Your task to perform on an android device: set the stopwatch Image 0: 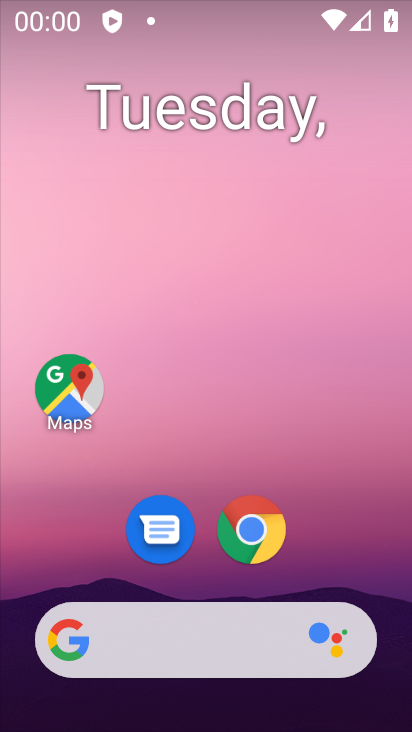
Step 0: drag from (319, 436) to (70, 32)
Your task to perform on an android device: set the stopwatch Image 1: 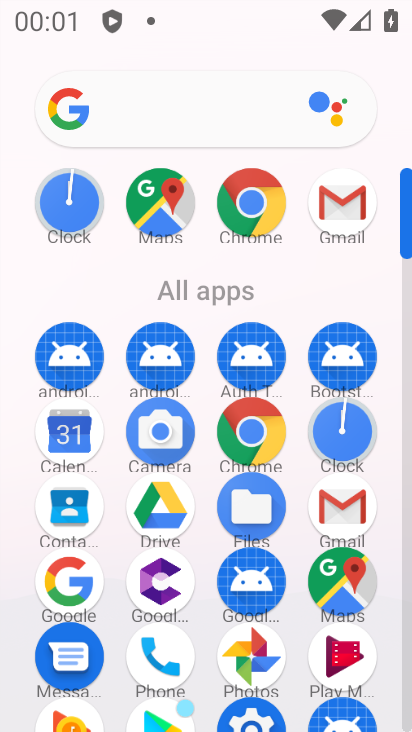
Step 1: click (345, 413)
Your task to perform on an android device: set the stopwatch Image 2: 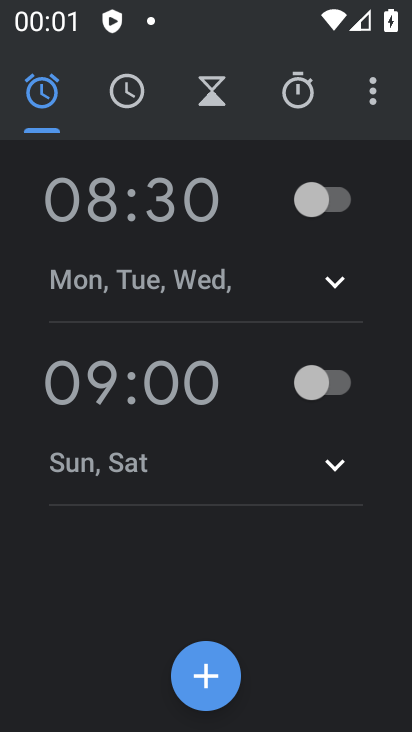
Step 2: click (292, 79)
Your task to perform on an android device: set the stopwatch Image 3: 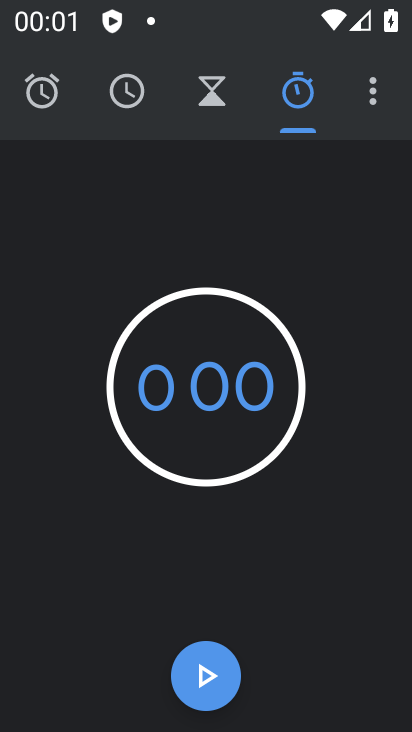
Step 3: click (180, 692)
Your task to perform on an android device: set the stopwatch Image 4: 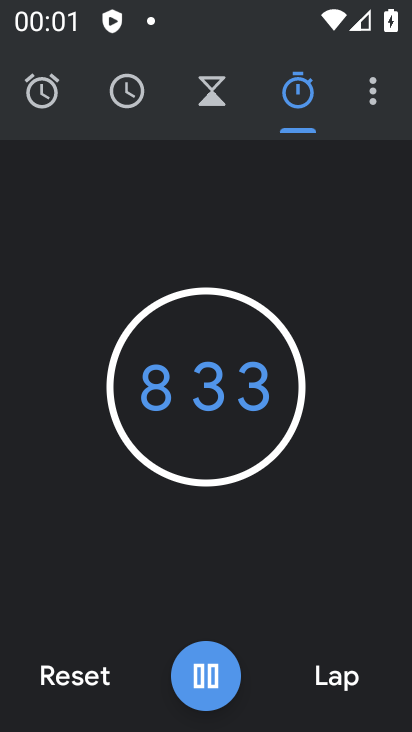
Step 4: task complete